Your task to perform on an android device: turn off improve location accuracy Image 0: 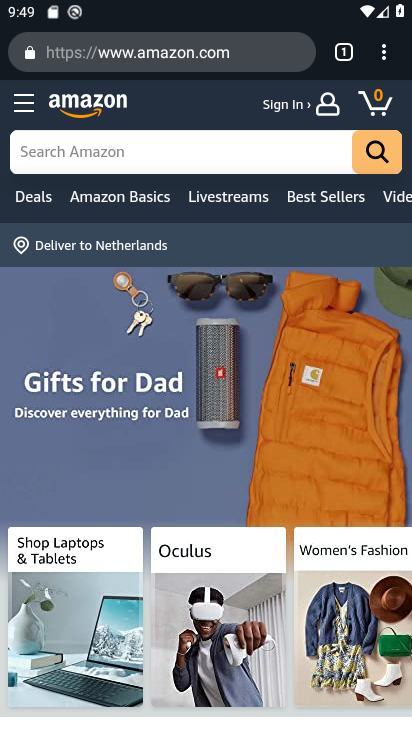
Step 0: press home button
Your task to perform on an android device: turn off improve location accuracy Image 1: 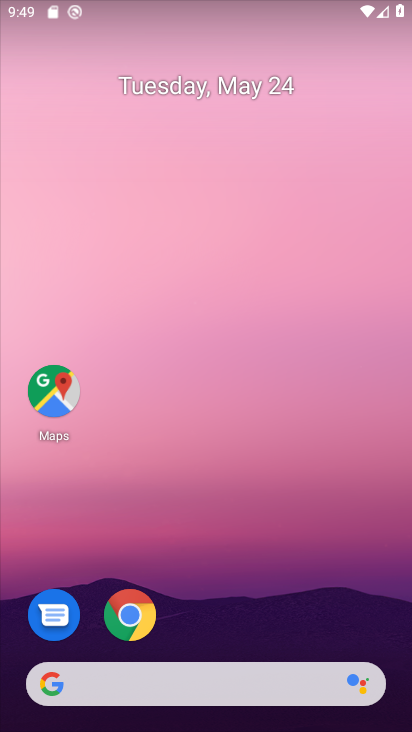
Step 1: drag from (381, 636) to (377, 249)
Your task to perform on an android device: turn off improve location accuracy Image 2: 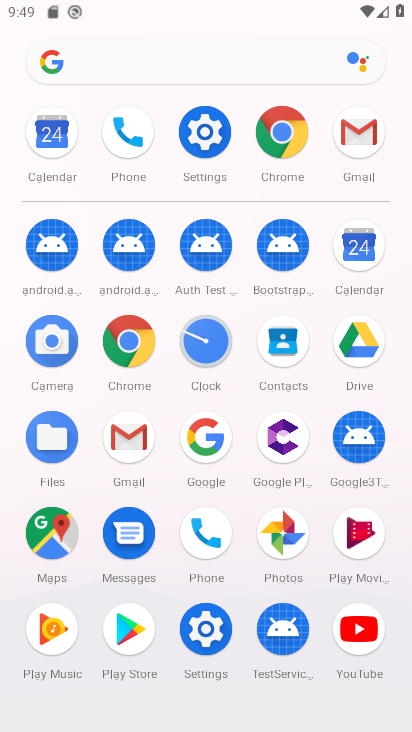
Step 2: click (212, 649)
Your task to perform on an android device: turn off improve location accuracy Image 3: 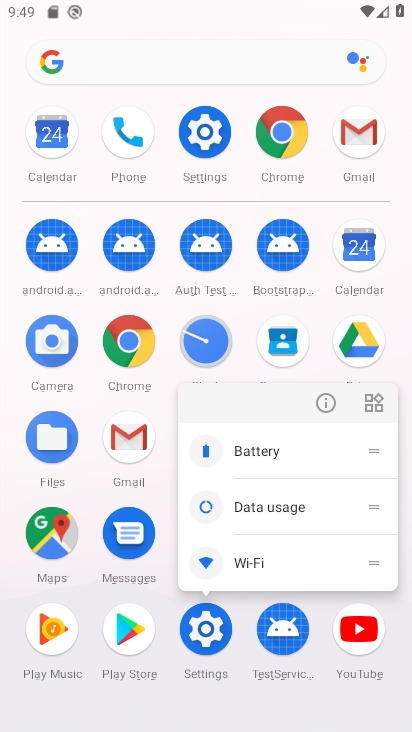
Step 3: click (212, 649)
Your task to perform on an android device: turn off improve location accuracy Image 4: 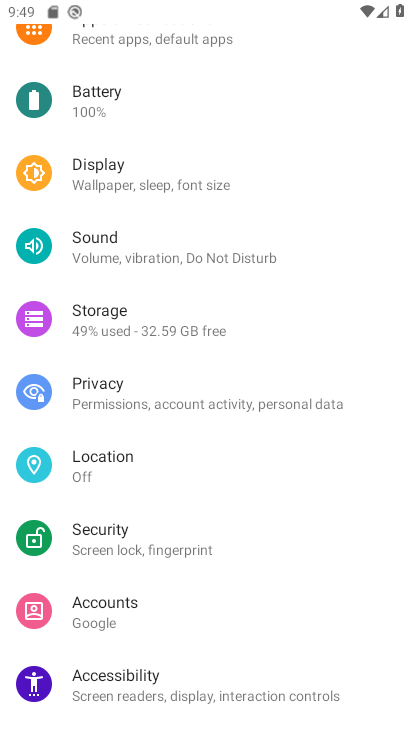
Step 4: drag from (363, 285) to (361, 385)
Your task to perform on an android device: turn off improve location accuracy Image 5: 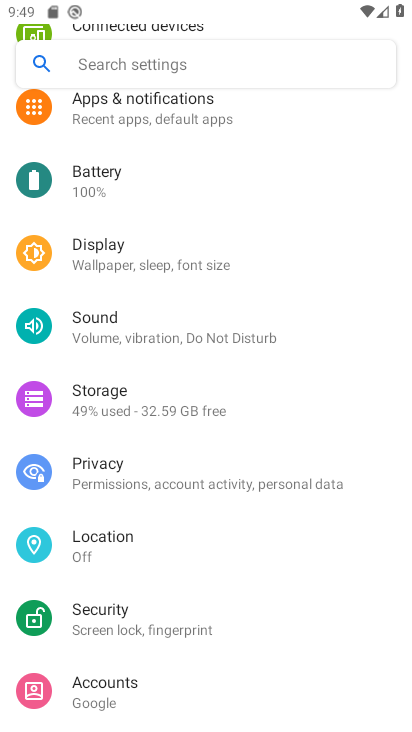
Step 5: drag from (370, 293) to (374, 408)
Your task to perform on an android device: turn off improve location accuracy Image 6: 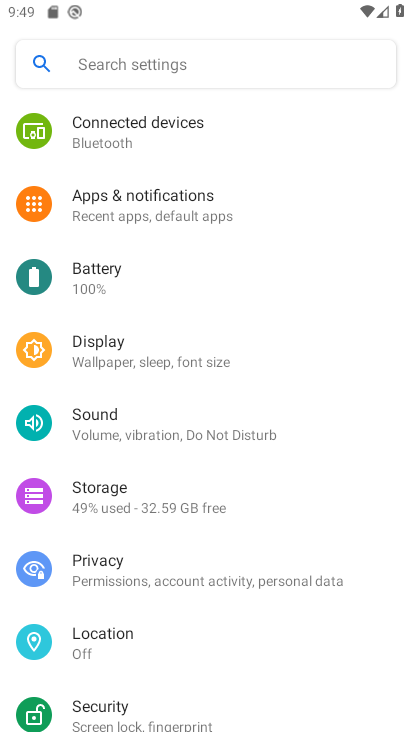
Step 6: drag from (369, 229) to (366, 349)
Your task to perform on an android device: turn off improve location accuracy Image 7: 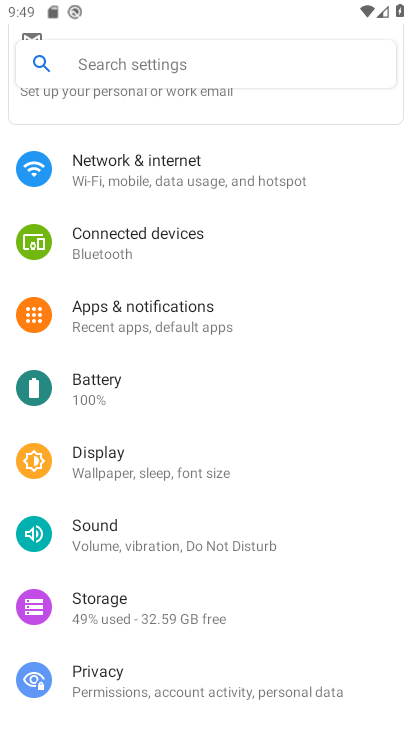
Step 7: drag from (358, 208) to (359, 349)
Your task to perform on an android device: turn off improve location accuracy Image 8: 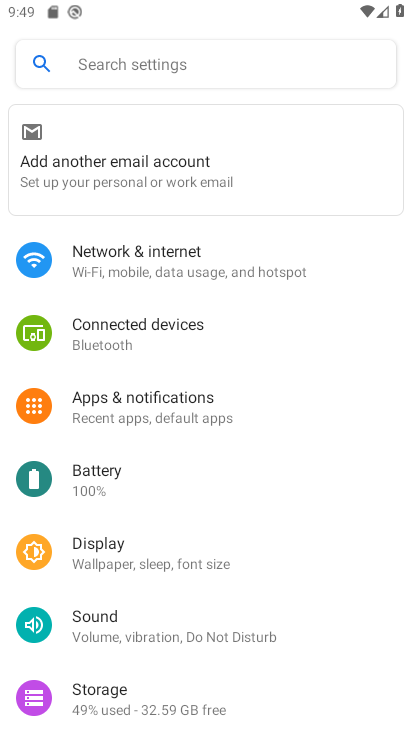
Step 8: drag from (344, 485) to (352, 385)
Your task to perform on an android device: turn off improve location accuracy Image 9: 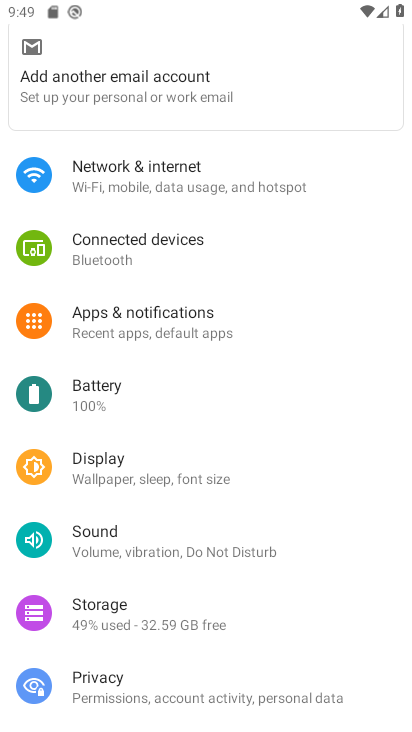
Step 9: drag from (350, 504) to (348, 399)
Your task to perform on an android device: turn off improve location accuracy Image 10: 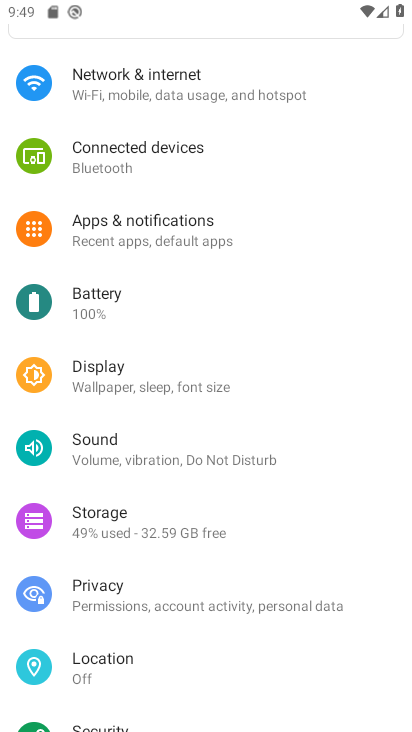
Step 10: drag from (354, 503) to (355, 404)
Your task to perform on an android device: turn off improve location accuracy Image 11: 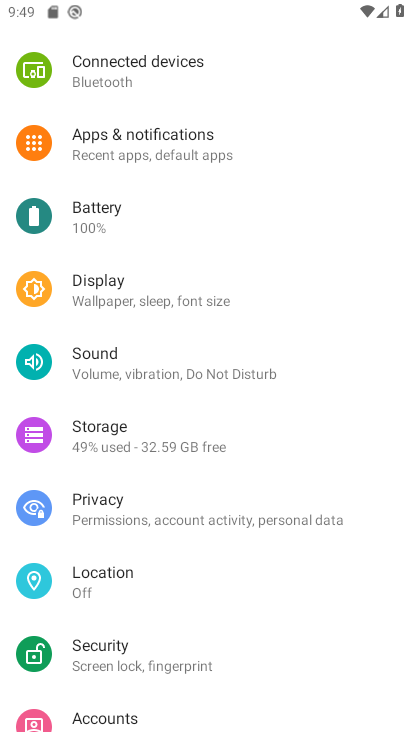
Step 11: drag from (351, 562) to (355, 419)
Your task to perform on an android device: turn off improve location accuracy Image 12: 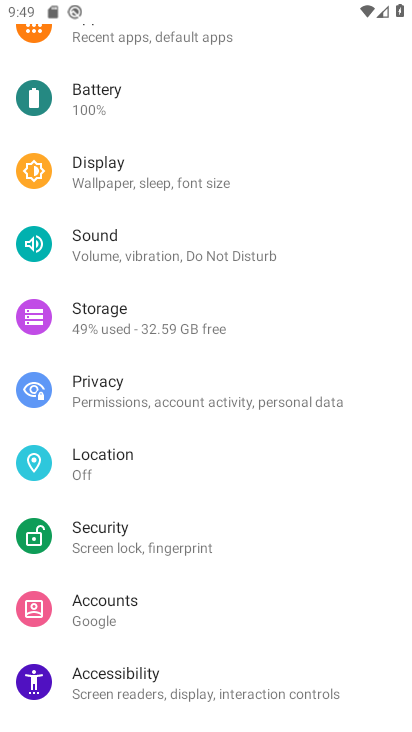
Step 12: click (125, 482)
Your task to perform on an android device: turn off improve location accuracy Image 13: 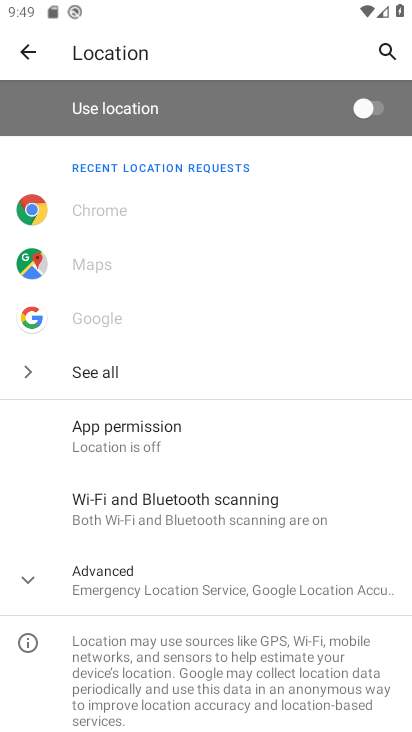
Step 13: click (255, 597)
Your task to perform on an android device: turn off improve location accuracy Image 14: 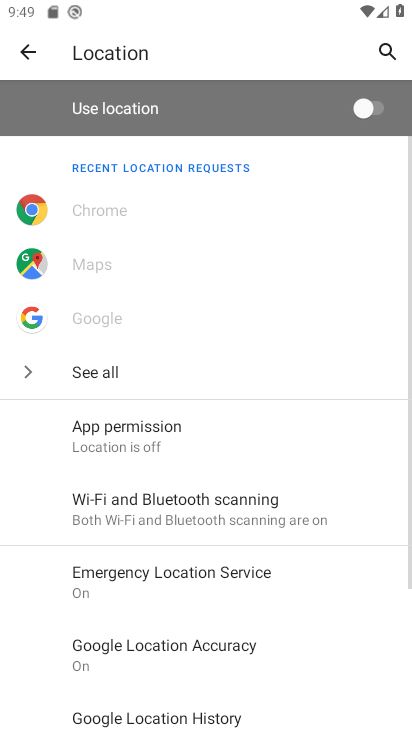
Step 14: drag from (288, 621) to (303, 450)
Your task to perform on an android device: turn off improve location accuracy Image 15: 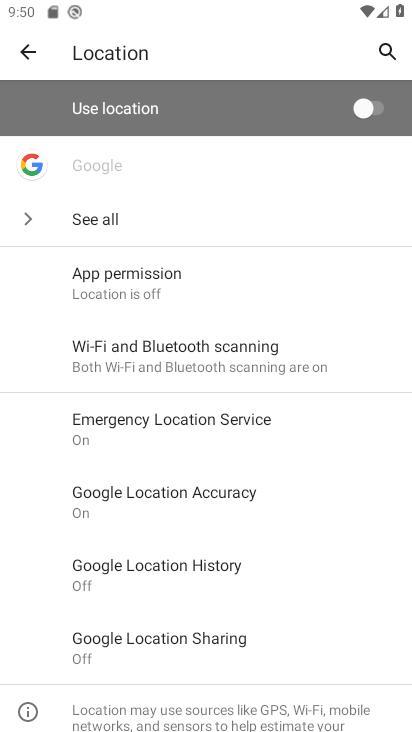
Step 15: drag from (323, 599) to (344, 529)
Your task to perform on an android device: turn off improve location accuracy Image 16: 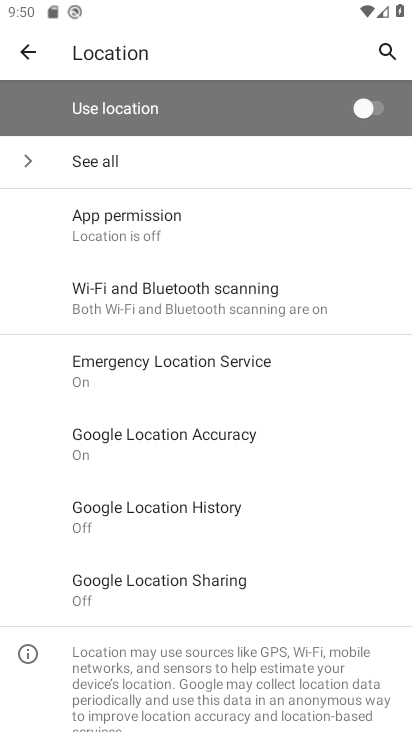
Step 16: click (157, 439)
Your task to perform on an android device: turn off improve location accuracy Image 17: 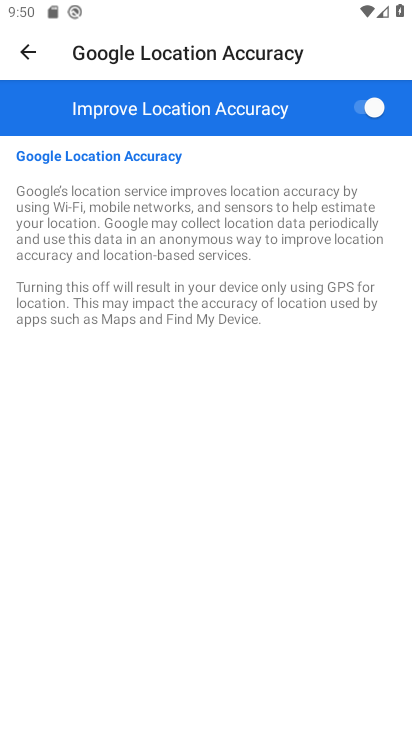
Step 17: click (382, 110)
Your task to perform on an android device: turn off improve location accuracy Image 18: 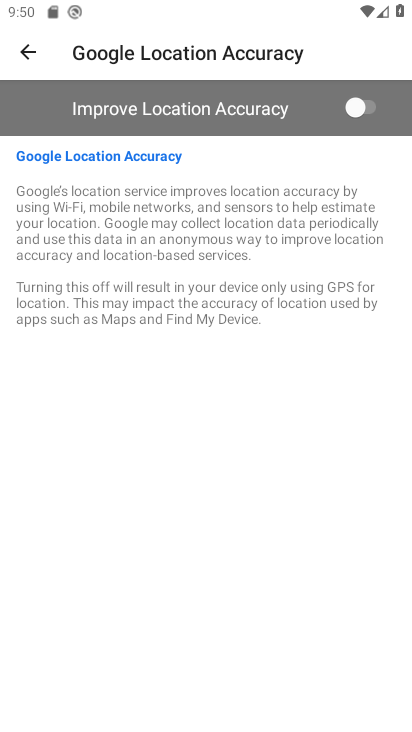
Step 18: task complete